Your task to perform on an android device: Open privacy settings Image 0: 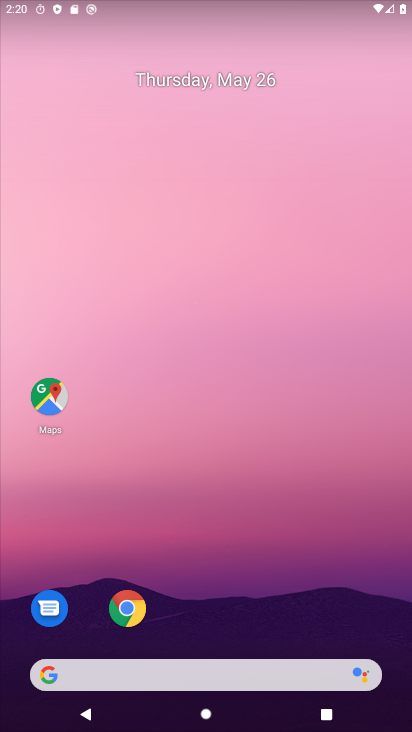
Step 0: drag from (244, 602) to (164, 49)
Your task to perform on an android device: Open privacy settings Image 1: 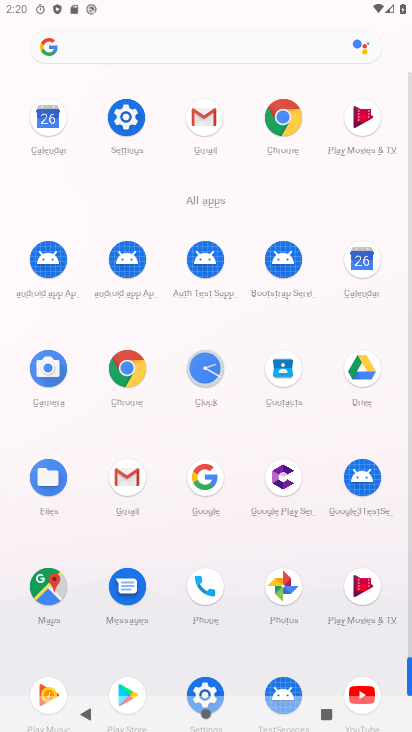
Step 1: click (116, 110)
Your task to perform on an android device: Open privacy settings Image 2: 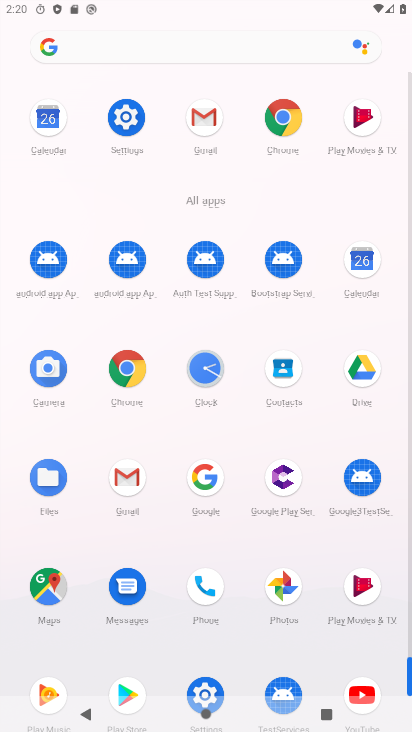
Step 2: click (117, 110)
Your task to perform on an android device: Open privacy settings Image 3: 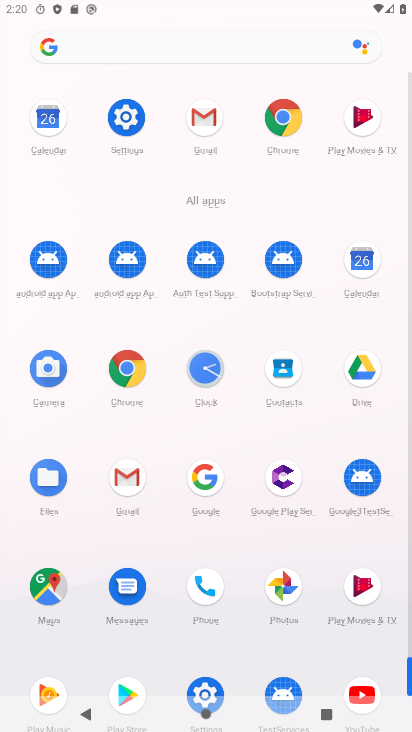
Step 3: click (117, 110)
Your task to perform on an android device: Open privacy settings Image 4: 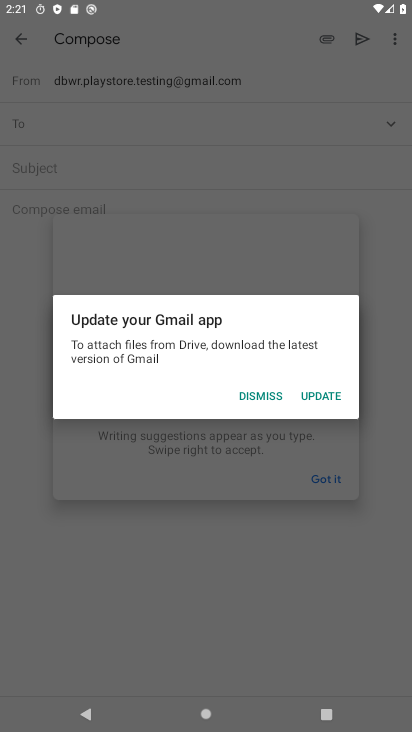
Step 4: click (271, 388)
Your task to perform on an android device: Open privacy settings Image 5: 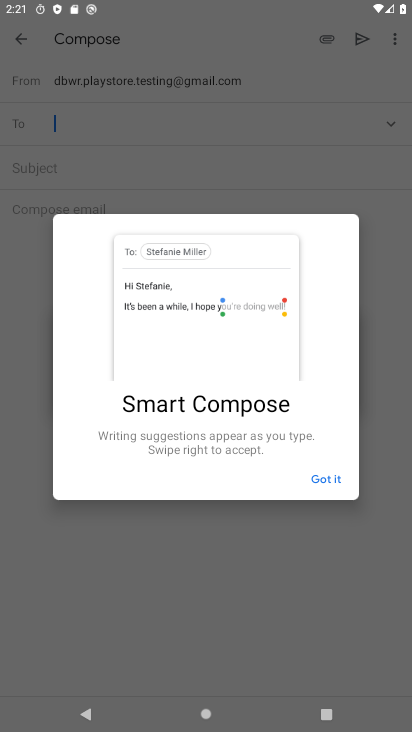
Step 5: click (330, 470)
Your task to perform on an android device: Open privacy settings Image 6: 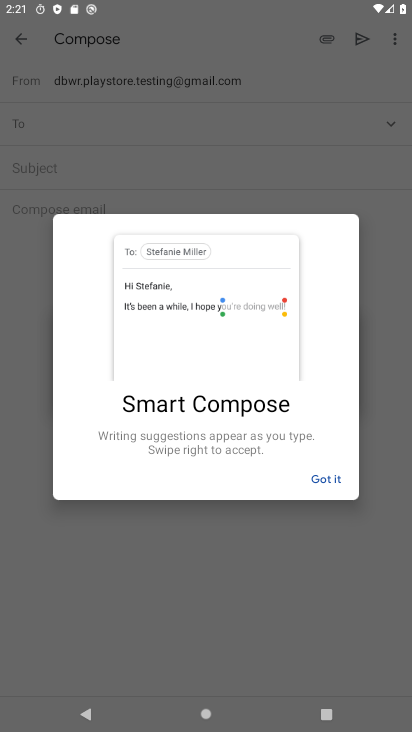
Step 6: click (332, 476)
Your task to perform on an android device: Open privacy settings Image 7: 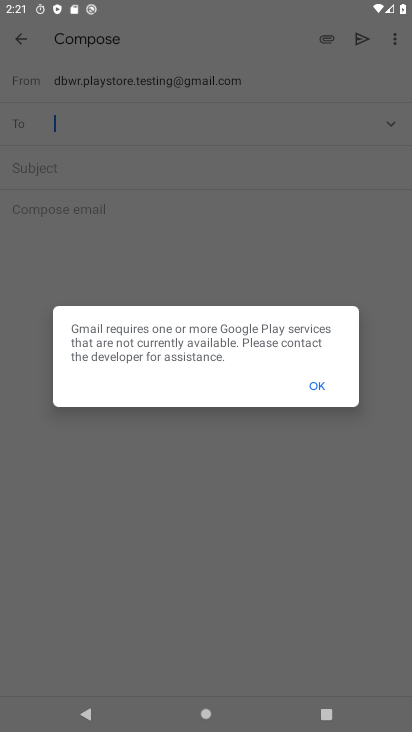
Step 7: click (333, 480)
Your task to perform on an android device: Open privacy settings Image 8: 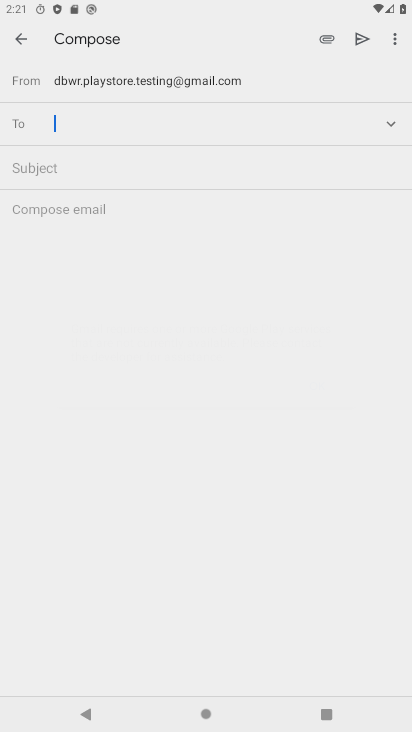
Step 8: click (333, 480)
Your task to perform on an android device: Open privacy settings Image 9: 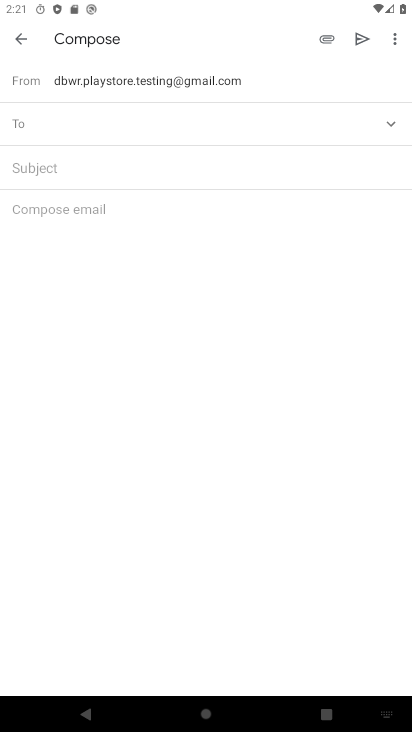
Step 9: click (20, 44)
Your task to perform on an android device: Open privacy settings Image 10: 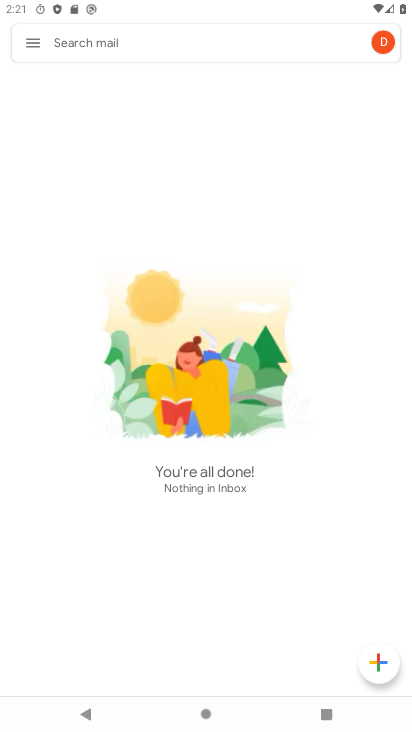
Step 10: click (30, 47)
Your task to perform on an android device: Open privacy settings Image 11: 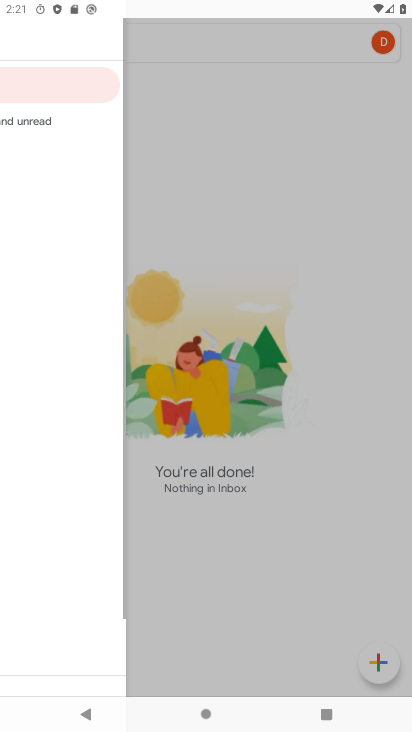
Step 11: click (30, 47)
Your task to perform on an android device: Open privacy settings Image 12: 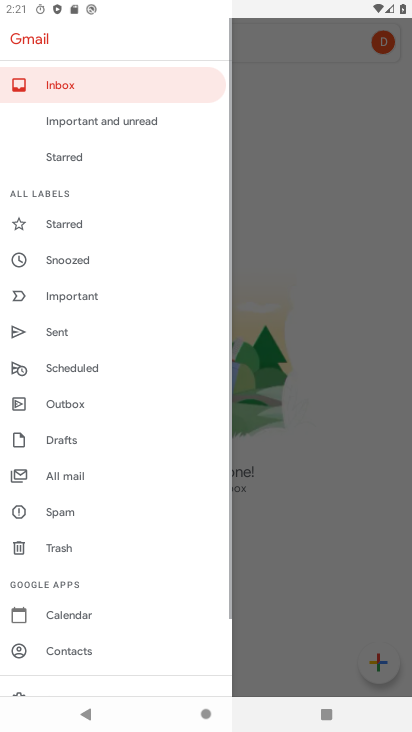
Step 12: click (30, 47)
Your task to perform on an android device: Open privacy settings Image 13: 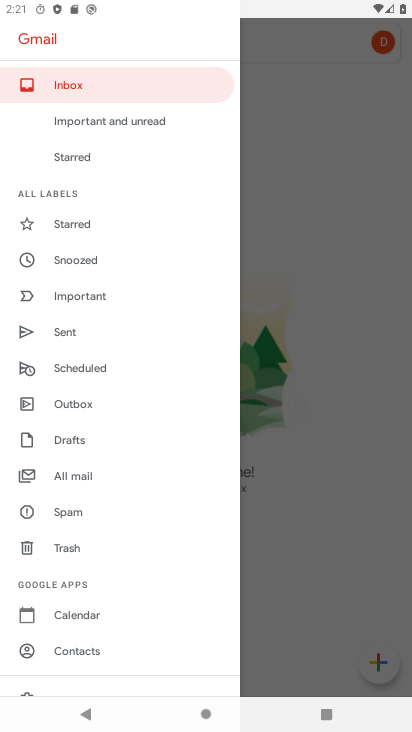
Step 13: click (324, 478)
Your task to perform on an android device: Open privacy settings Image 14: 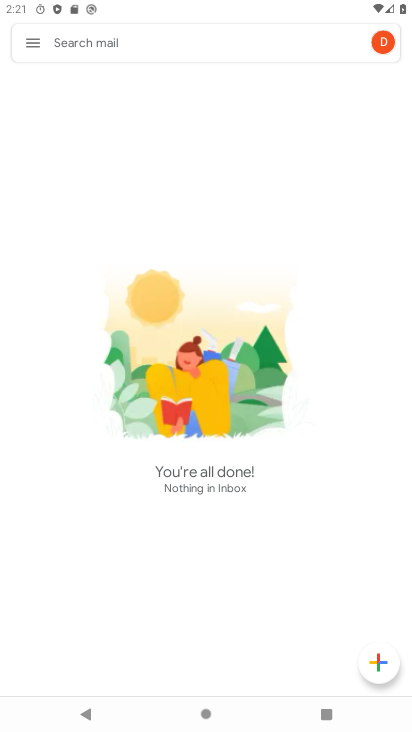
Step 14: press back button
Your task to perform on an android device: Open privacy settings Image 15: 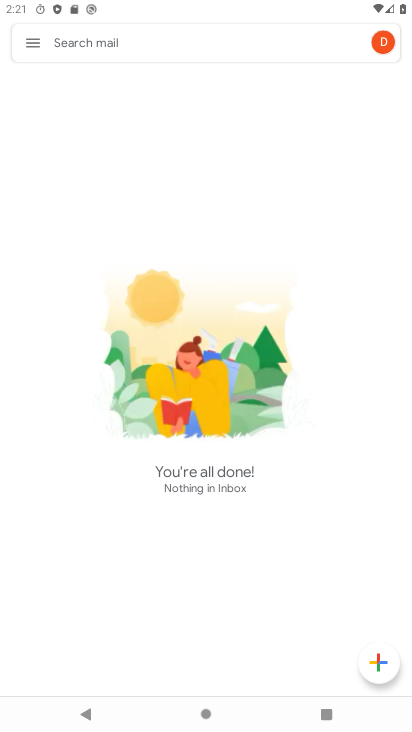
Step 15: press back button
Your task to perform on an android device: Open privacy settings Image 16: 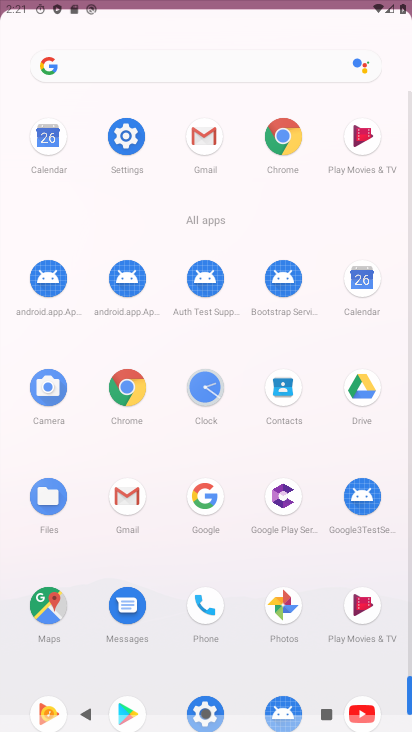
Step 16: press back button
Your task to perform on an android device: Open privacy settings Image 17: 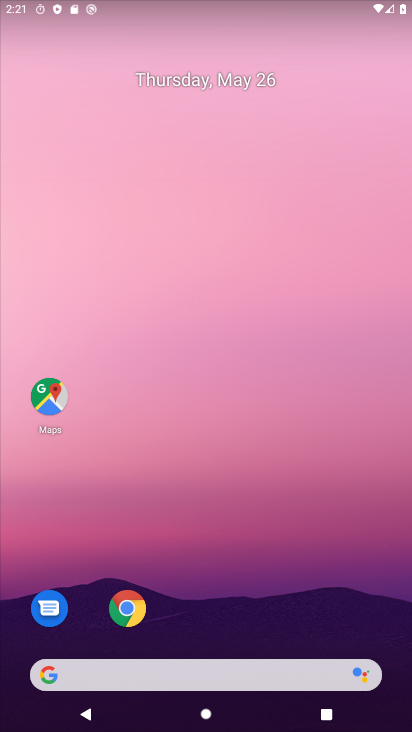
Step 17: drag from (256, 663) to (172, 47)
Your task to perform on an android device: Open privacy settings Image 18: 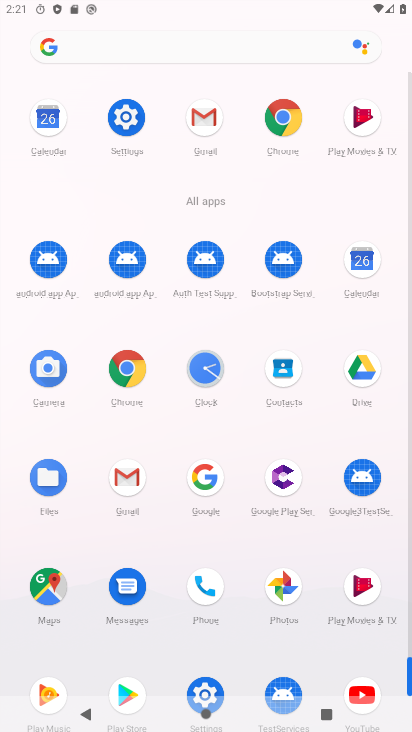
Step 18: click (129, 123)
Your task to perform on an android device: Open privacy settings Image 19: 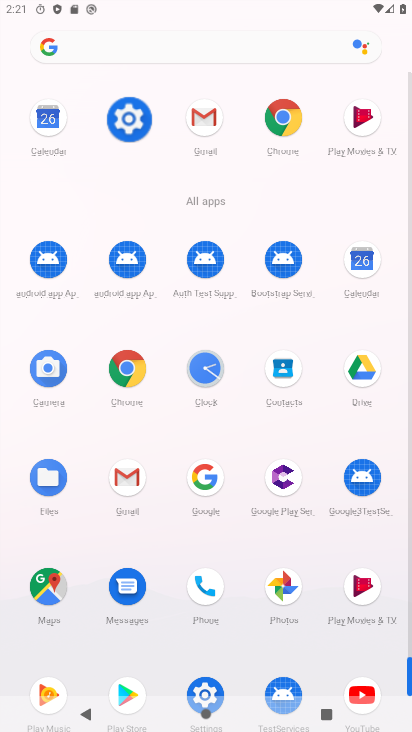
Step 19: click (129, 123)
Your task to perform on an android device: Open privacy settings Image 20: 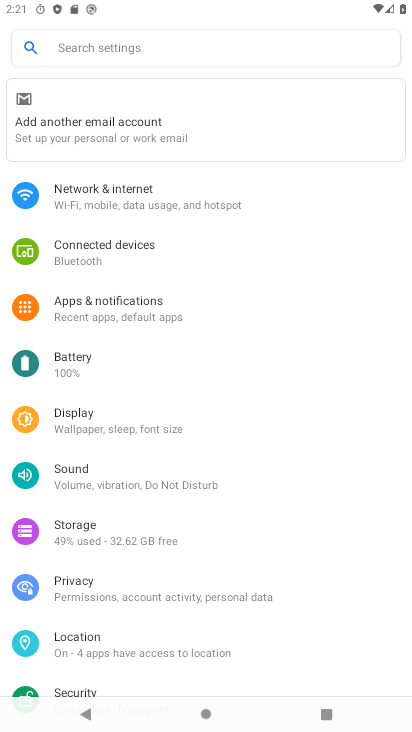
Step 20: click (77, 583)
Your task to perform on an android device: Open privacy settings Image 21: 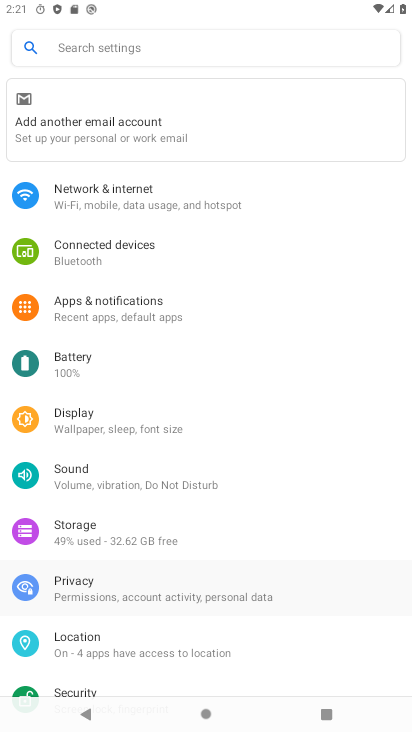
Step 21: click (82, 576)
Your task to perform on an android device: Open privacy settings Image 22: 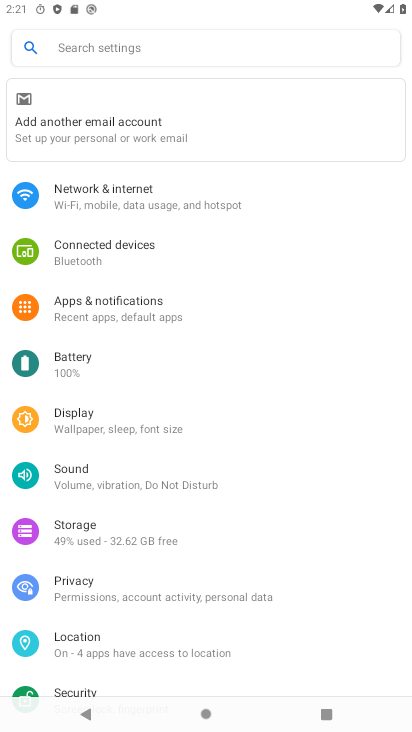
Step 22: click (82, 576)
Your task to perform on an android device: Open privacy settings Image 23: 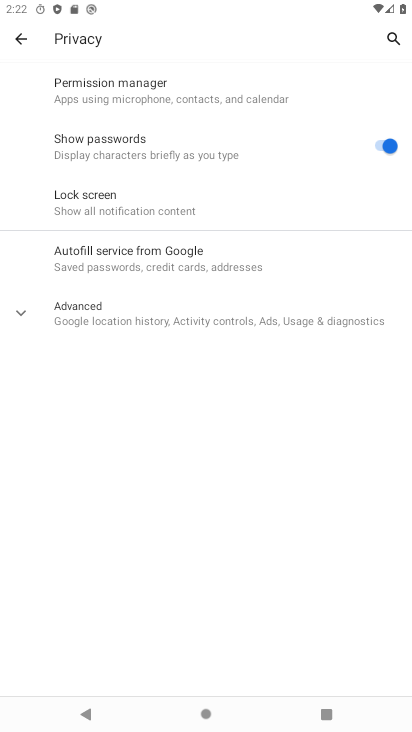
Step 23: task complete